Your task to perform on an android device: toggle sleep mode Image 0: 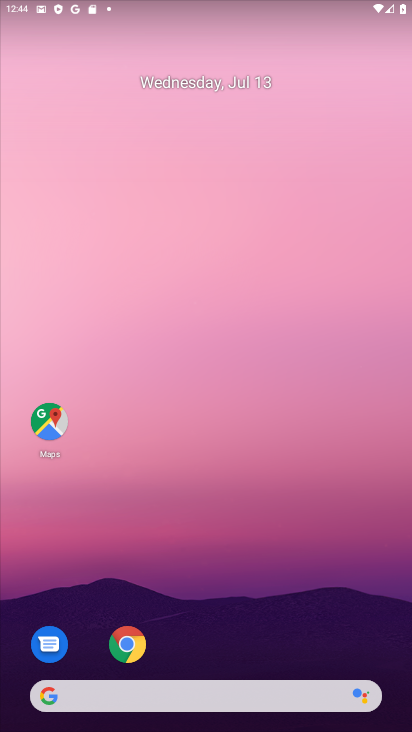
Step 0: drag from (248, 623) to (159, 169)
Your task to perform on an android device: toggle sleep mode Image 1: 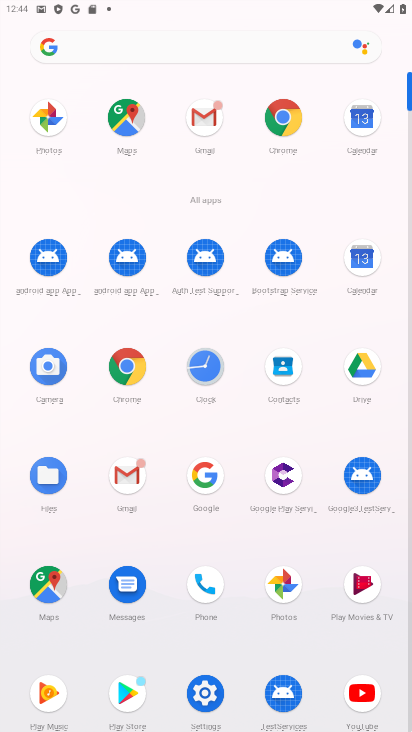
Step 1: click (208, 700)
Your task to perform on an android device: toggle sleep mode Image 2: 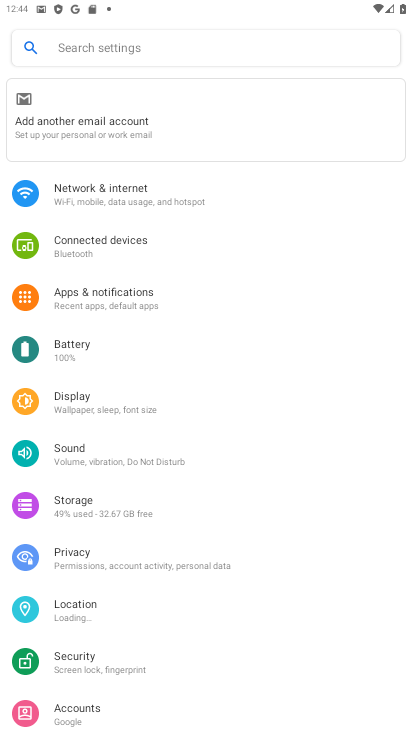
Step 2: click (258, 406)
Your task to perform on an android device: toggle sleep mode Image 3: 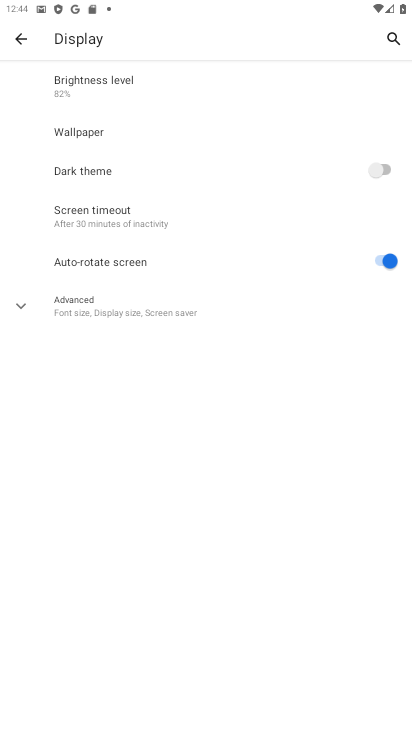
Step 3: click (295, 298)
Your task to perform on an android device: toggle sleep mode Image 4: 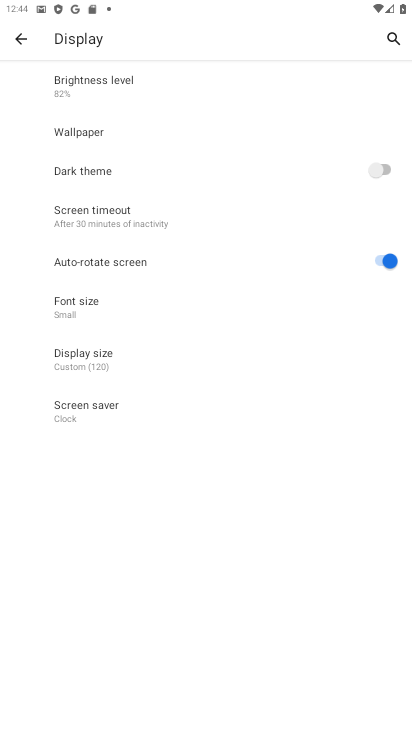
Step 4: task complete